Your task to perform on an android device: Go to Yahoo.com Image 0: 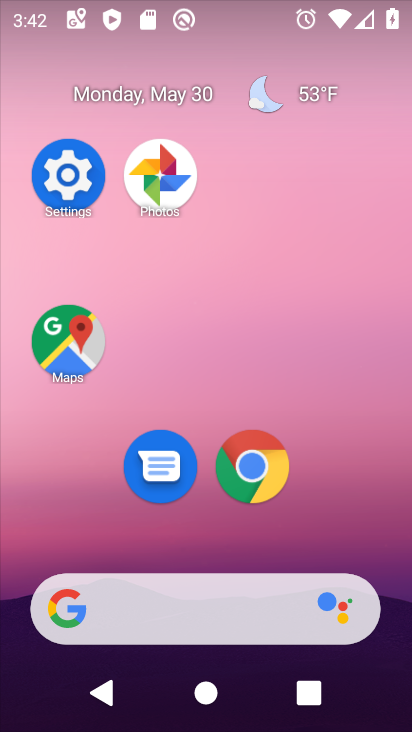
Step 0: click (273, 480)
Your task to perform on an android device: Go to Yahoo.com Image 1: 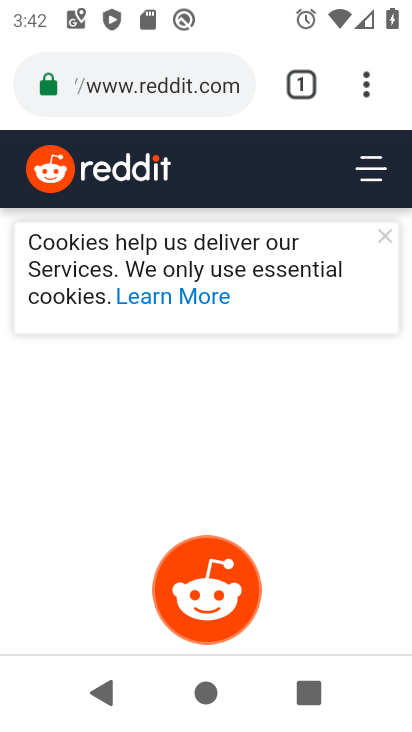
Step 1: click (297, 77)
Your task to perform on an android device: Go to Yahoo.com Image 2: 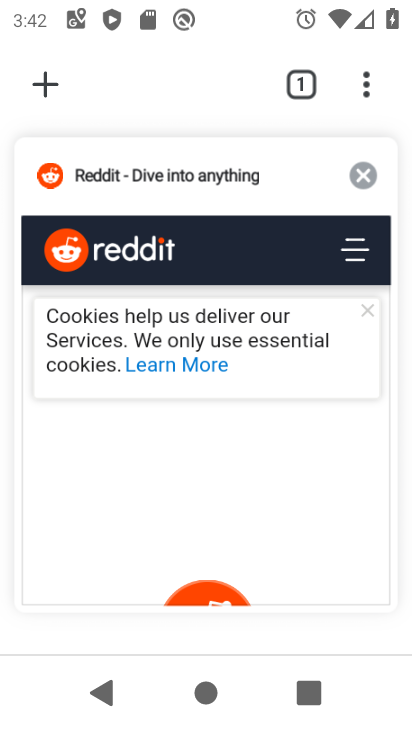
Step 2: click (55, 81)
Your task to perform on an android device: Go to Yahoo.com Image 3: 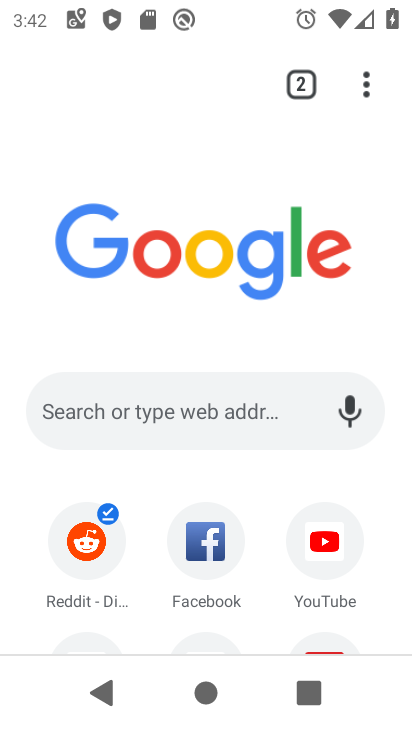
Step 3: drag from (230, 508) to (165, 155)
Your task to perform on an android device: Go to Yahoo.com Image 4: 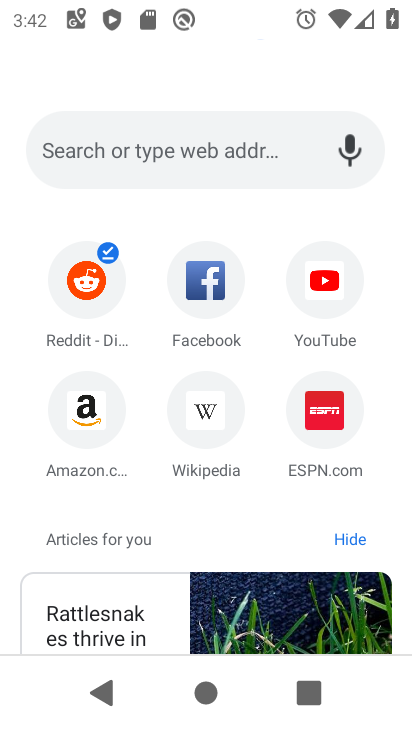
Step 4: click (156, 158)
Your task to perform on an android device: Go to Yahoo.com Image 5: 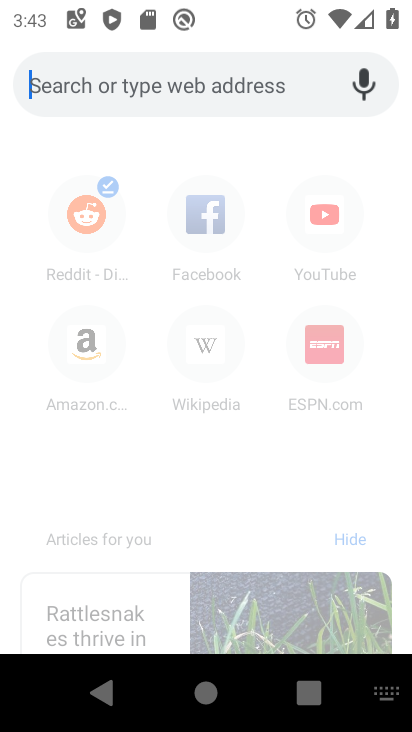
Step 5: type "yahoo"
Your task to perform on an android device: Go to Yahoo.com Image 6: 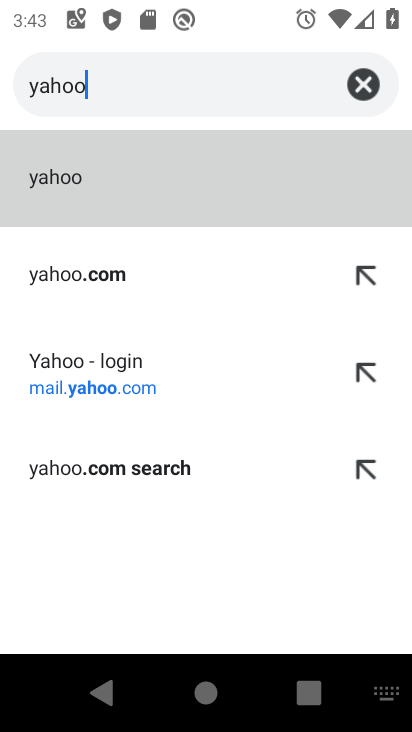
Step 6: click (105, 288)
Your task to perform on an android device: Go to Yahoo.com Image 7: 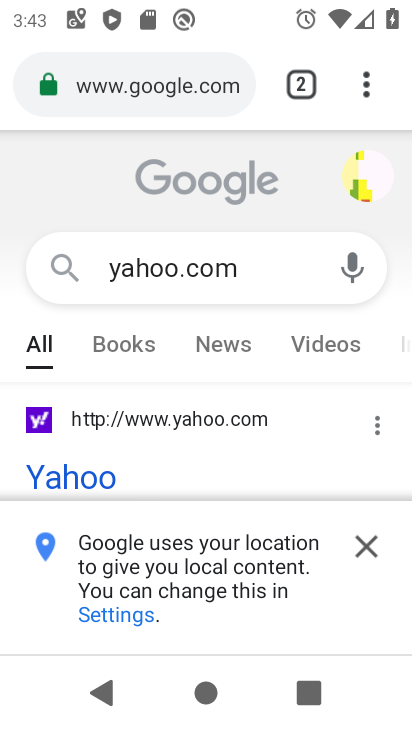
Step 7: click (111, 455)
Your task to perform on an android device: Go to Yahoo.com Image 8: 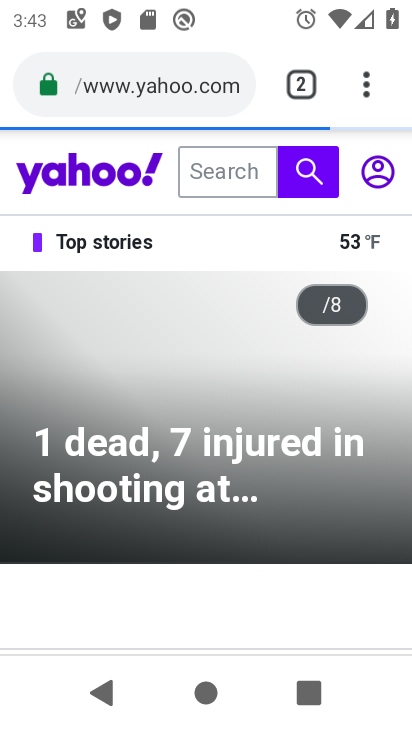
Step 8: task complete